Your task to perform on an android device: install app "VLC for Android" Image 0: 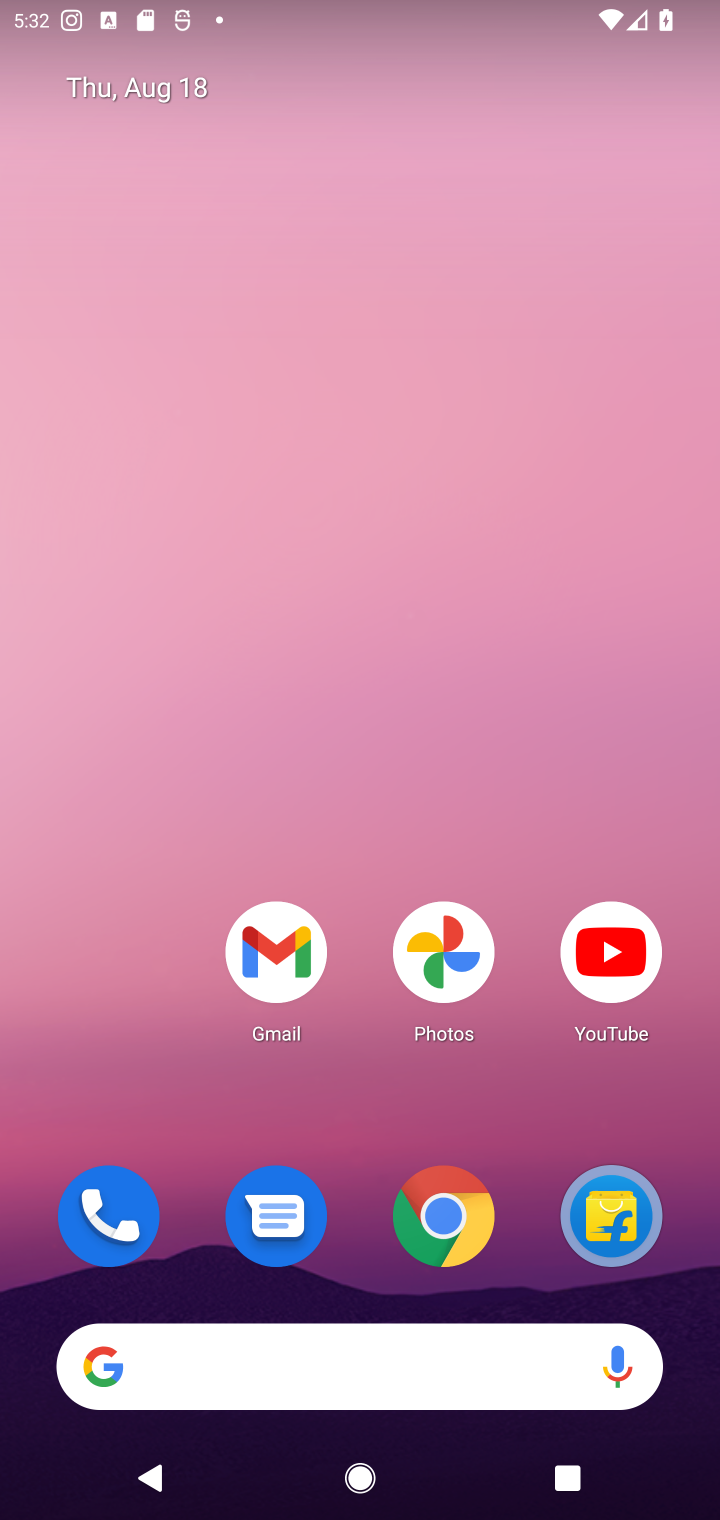
Step 0: drag from (389, 1084) to (247, 21)
Your task to perform on an android device: install app "VLC for Android" Image 1: 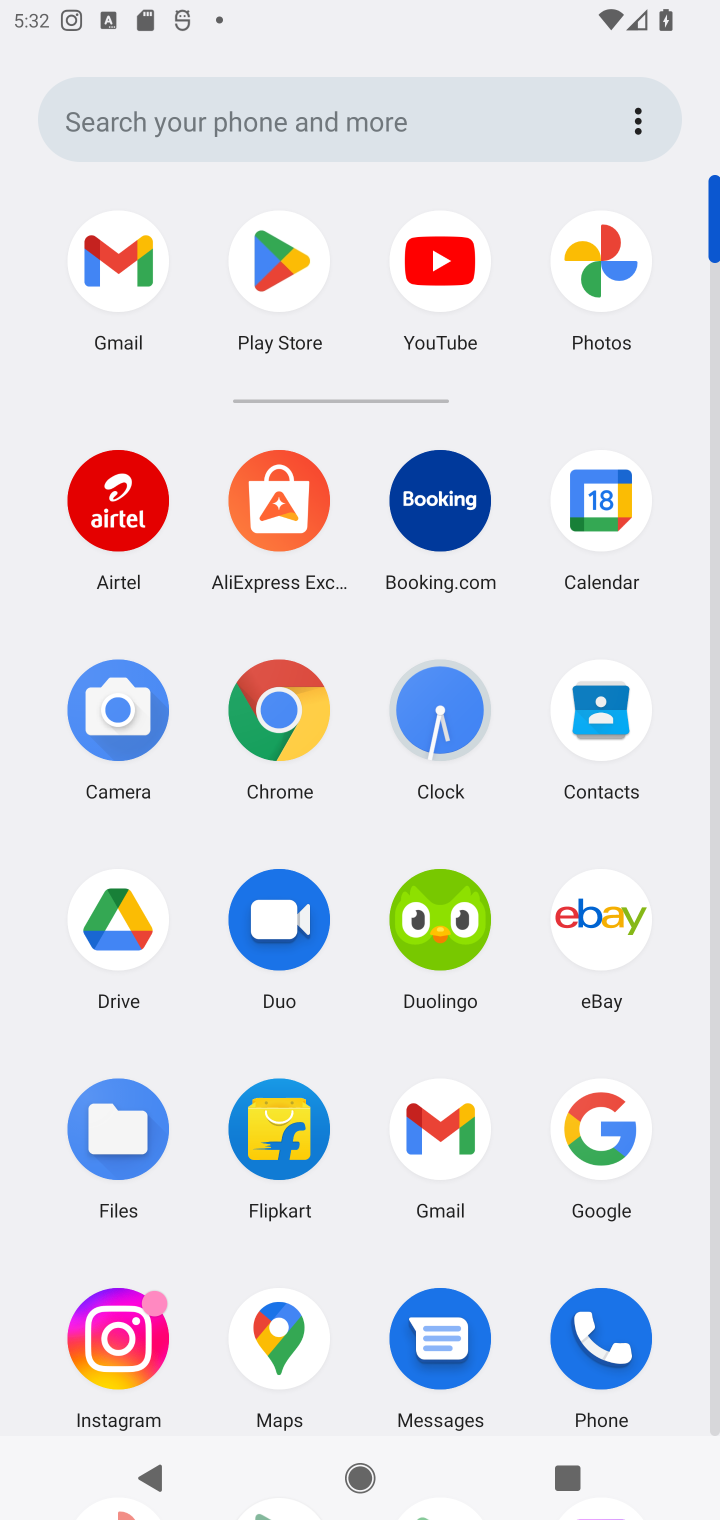
Step 1: click (262, 292)
Your task to perform on an android device: install app "VLC for Android" Image 2: 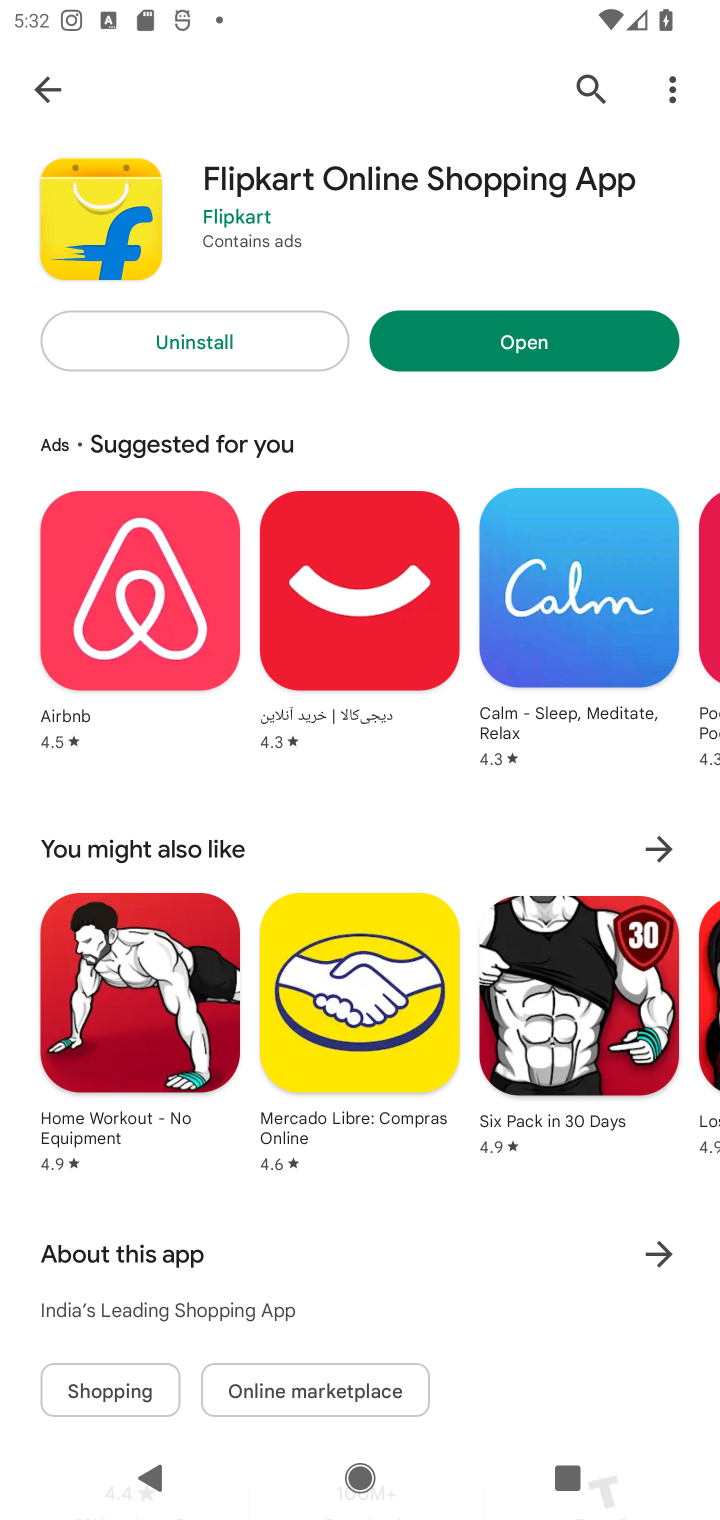
Step 2: click (603, 79)
Your task to perform on an android device: install app "VLC for Android" Image 3: 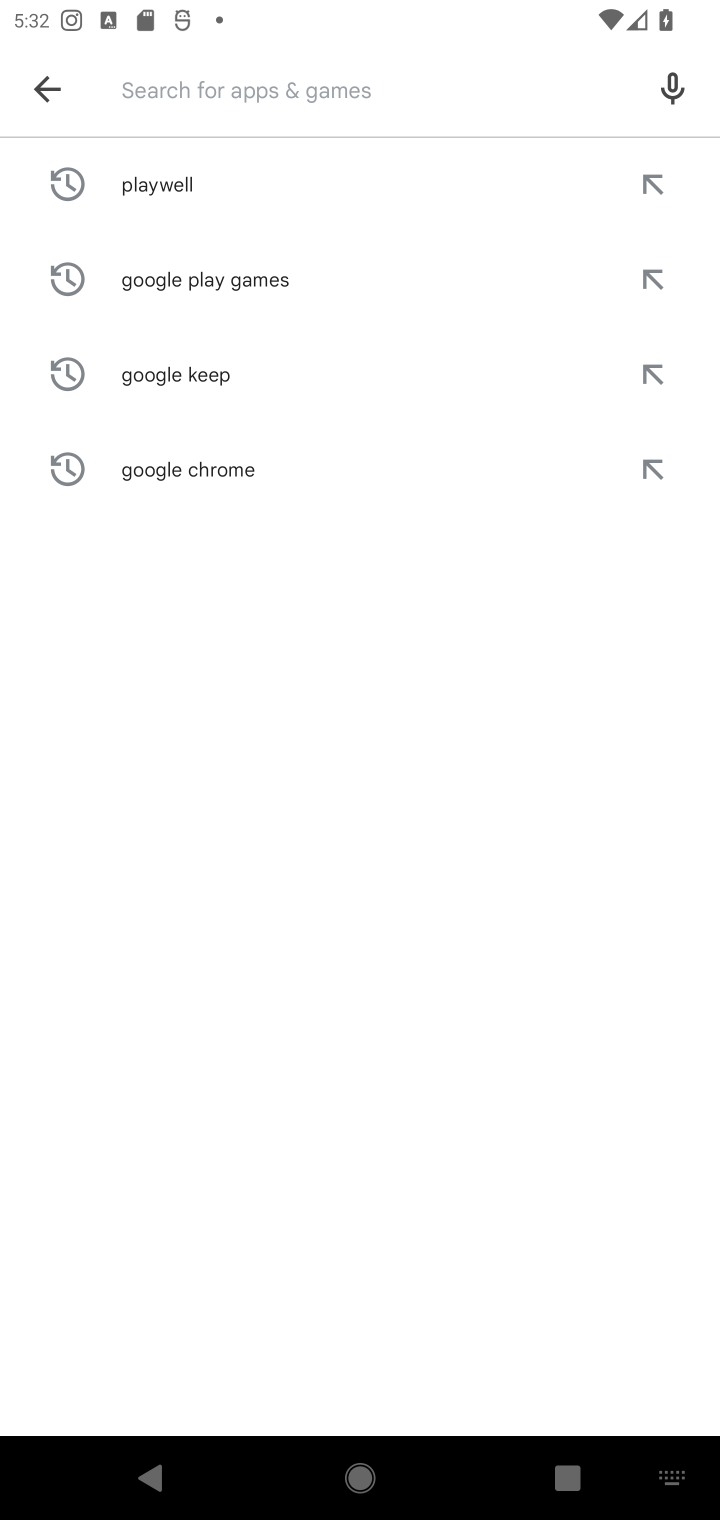
Step 3: type "VLC for Android"
Your task to perform on an android device: install app "VLC for Android" Image 4: 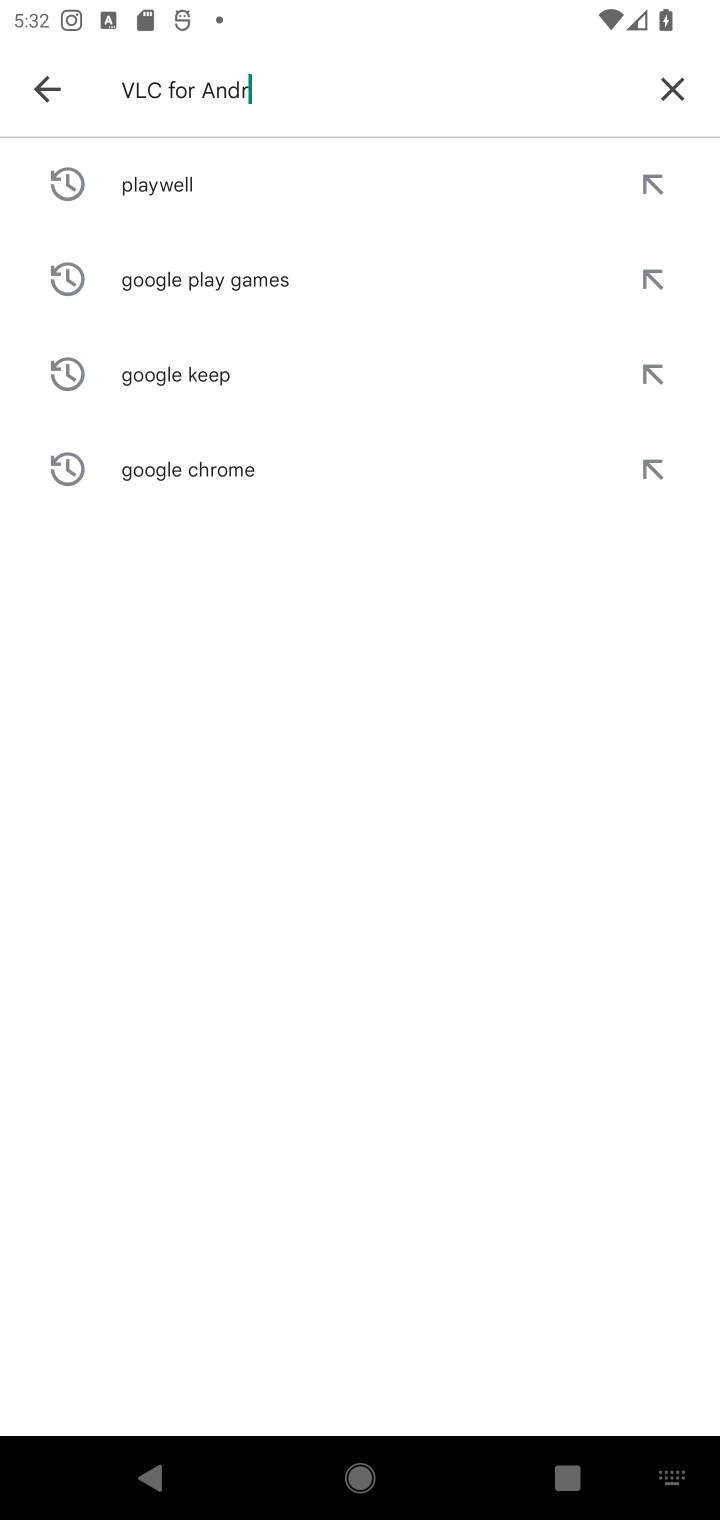
Step 4: type ""
Your task to perform on an android device: install app "VLC for Android" Image 5: 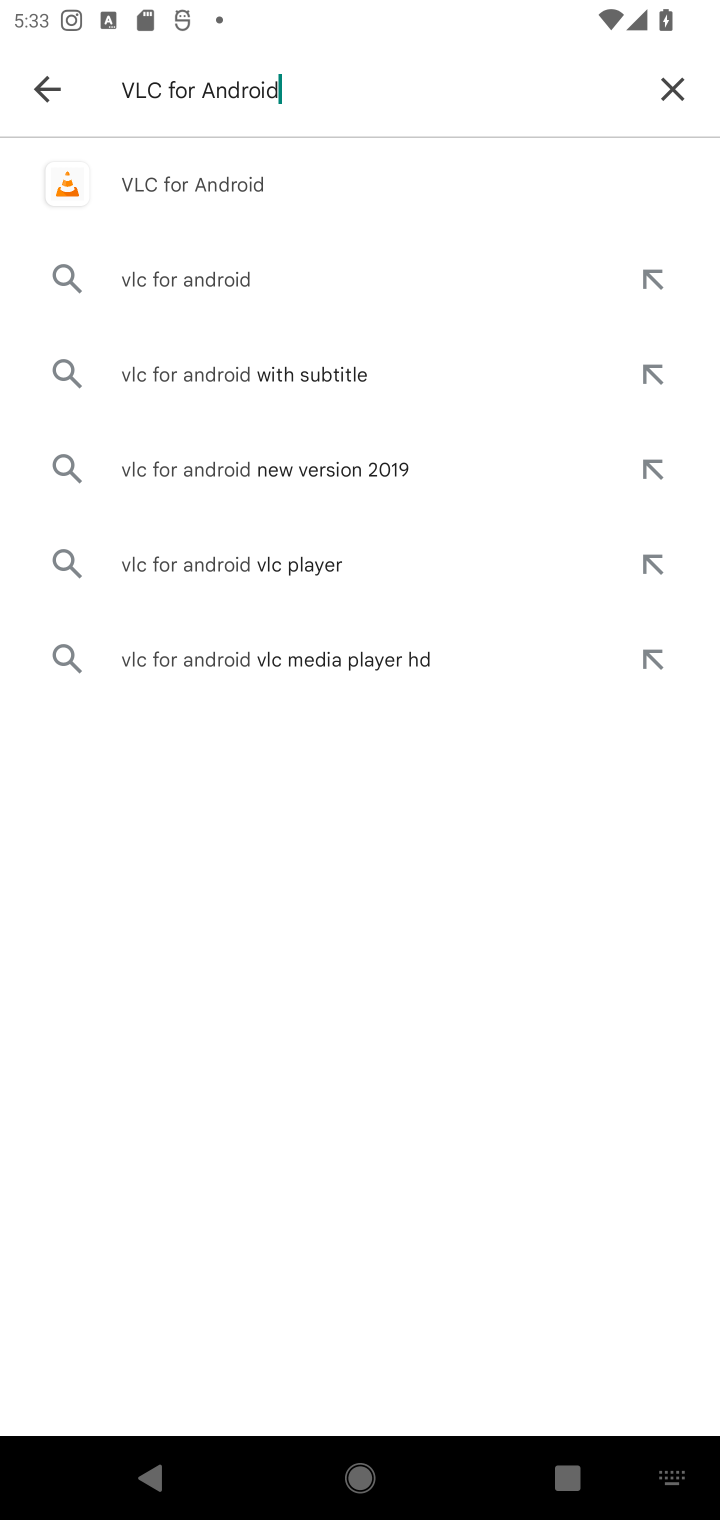
Step 5: click (233, 185)
Your task to perform on an android device: install app "VLC for Android" Image 6: 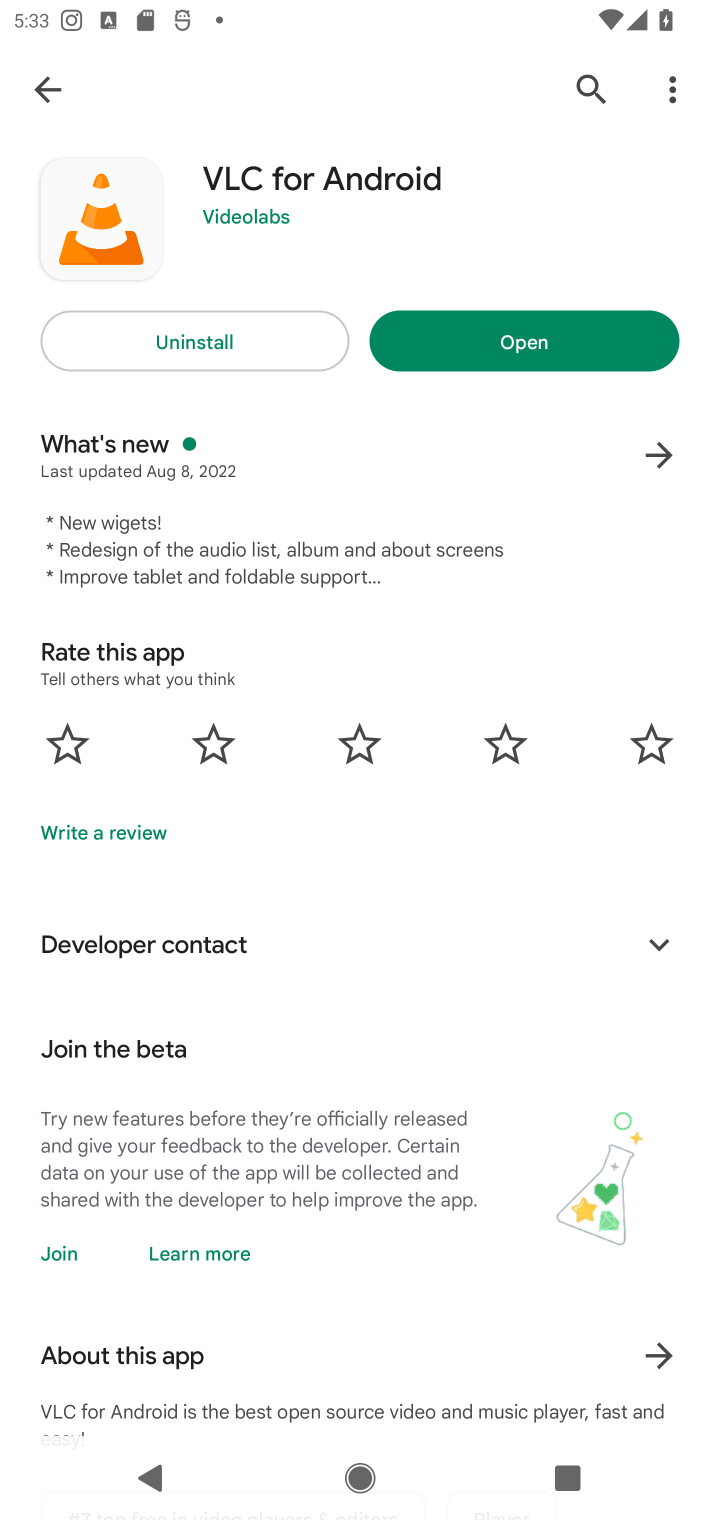
Step 6: task complete